Your task to perform on an android device: Open Google Maps and go to "Timeline" Image 0: 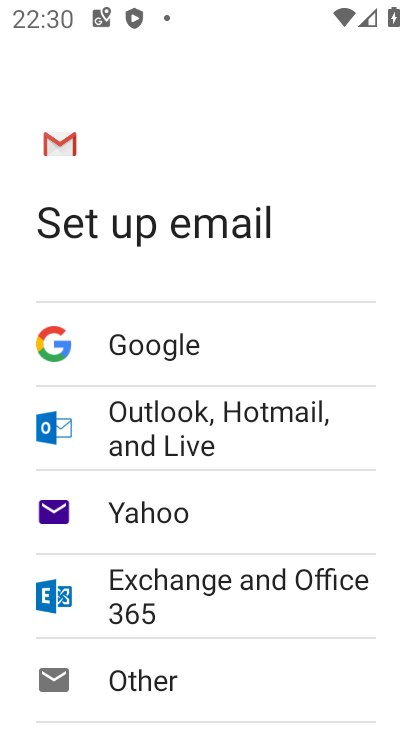
Step 0: press home button
Your task to perform on an android device: Open Google Maps and go to "Timeline" Image 1: 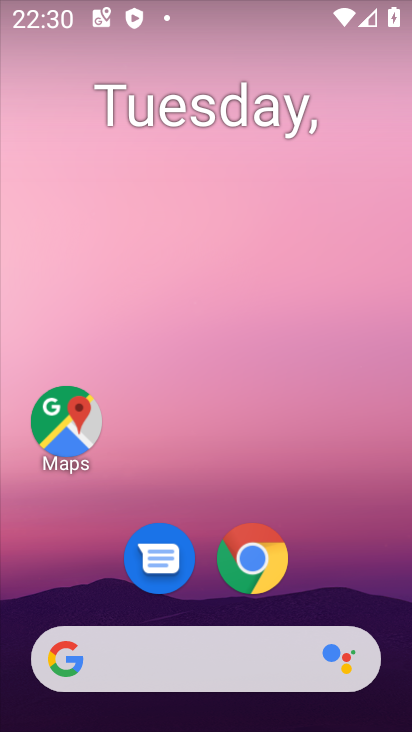
Step 1: click (65, 417)
Your task to perform on an android device: Open Google Maps and go to "Timeline" Image 2: 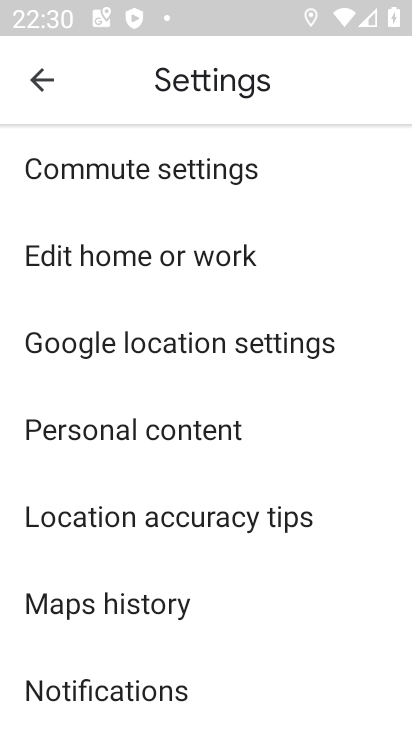
Step 2: click (47, 79)
Your task to perform on an android device: Open Google Maps and go to "Timeline" Image 3: 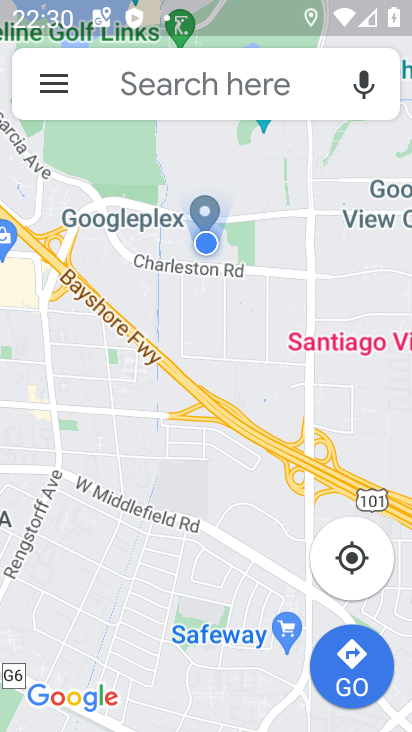
Step 3: click (35, 89)
Your task to perform on an android device: Open Google Maps and go to "Timeline" Image 4: 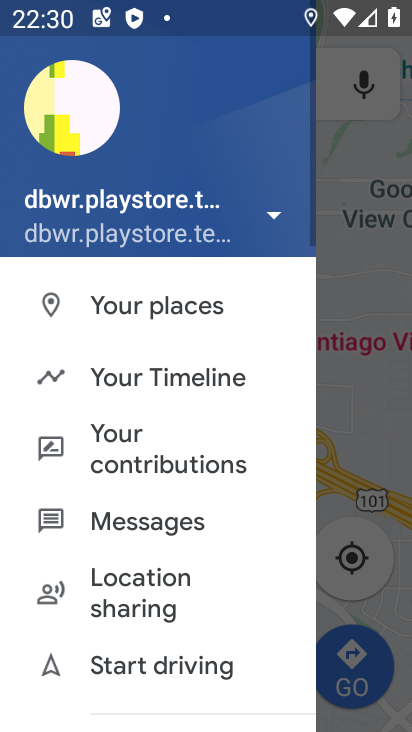
Step 4: click (203, 369)
Your task to perform on an android device: Open Google Maps and go to "Timeline" Image 5: 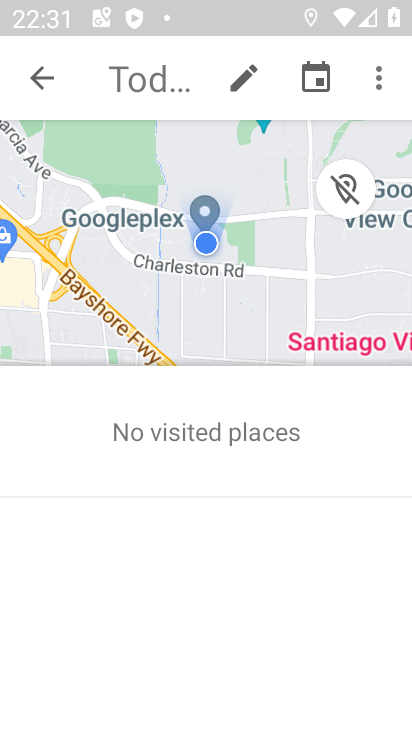
Step 5: task complete